Your task to perform on an android device: What's the weather? Image 0: 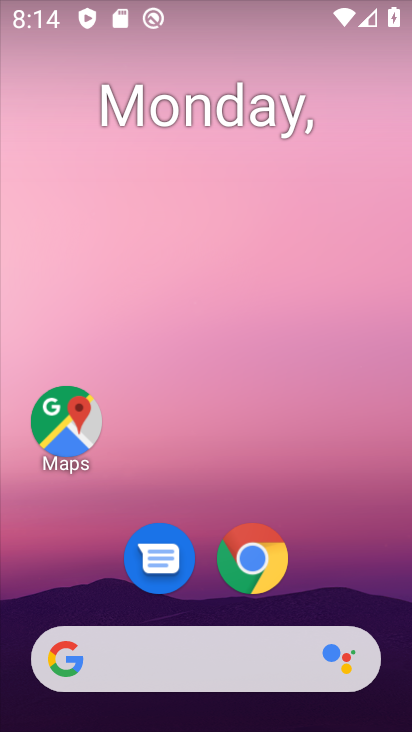
Step 0: drag from (309, 508) to (306, 37)
Your task to perform on an android device: What's the weather? Image 1: 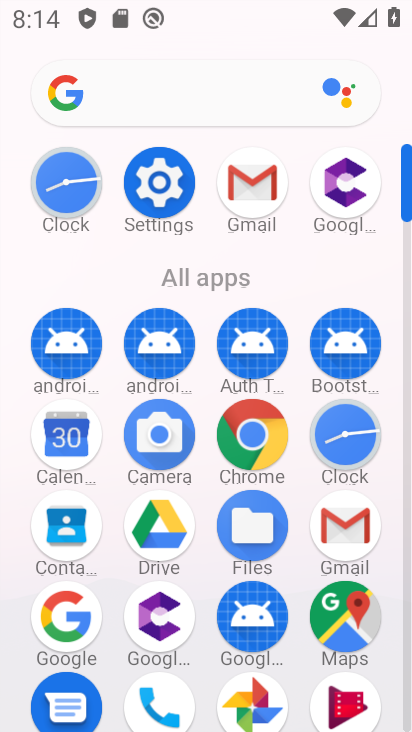
Step 1: click (246, 425)
Your task to perform on an android device: What's the weather? Image 2: 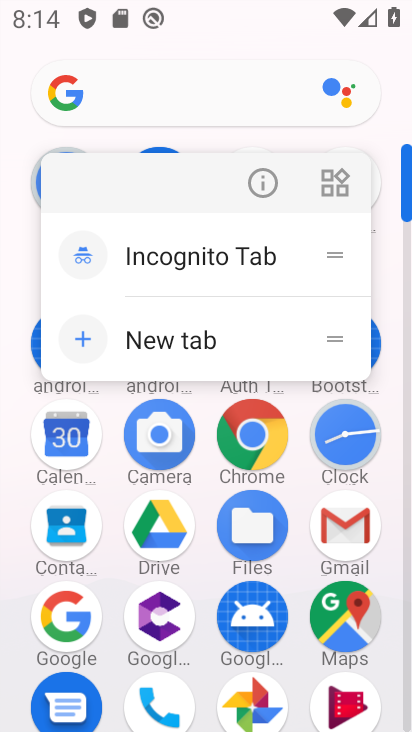
Step 2: click (246, 442)
Your task to perform on an android device: What's the weather? Image 3: 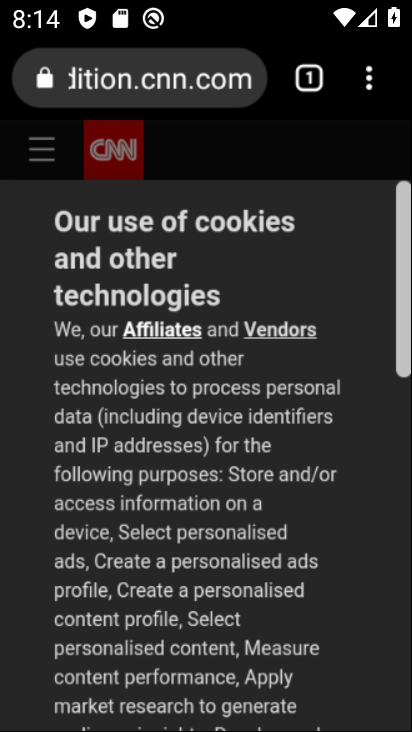
Step 3: click (159, 77)
Your task to perform on an android device: What's the weather? Image 4: 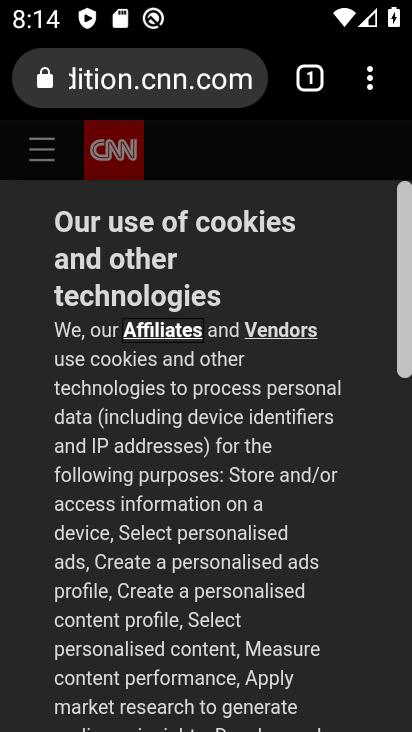
Step 4: type "weather"
Your task to perform on an android device: What's the weather? Image 5: 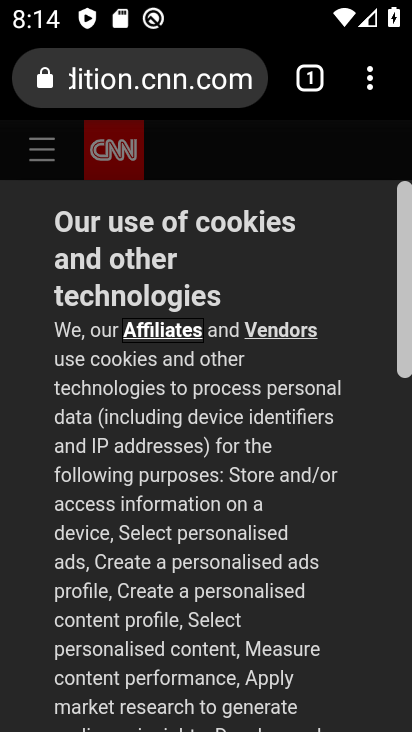
Step 5: click (215, 77)
Your task to perform on an android device: What's the weather? Image 6: 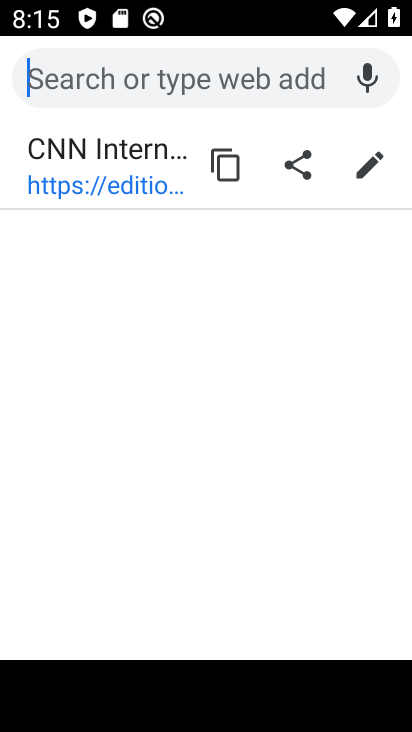
Step 6: type "weather"
Your task to perform on an android device: What's the weather? Image 7: 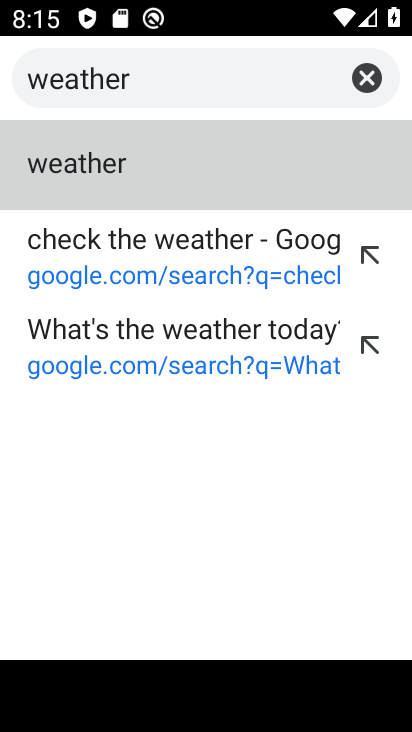
Step 7: click (76, 176)
Your task to perform on an android device: What's the weather? Image 8: 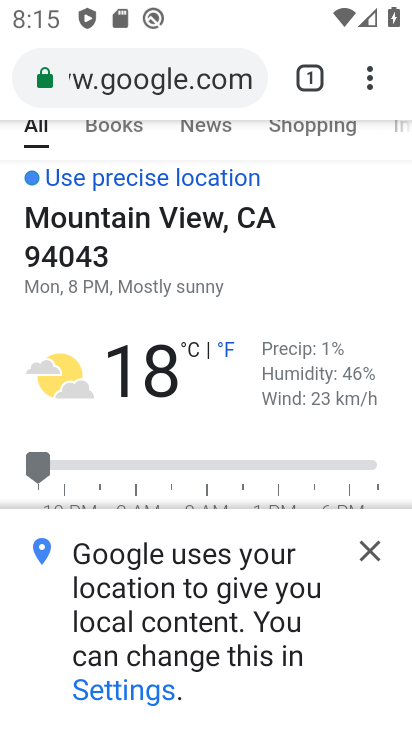
Step 8: task complete